Your task to perform on an android device: open app "Google Keep" (install if not already installed) Image 0: 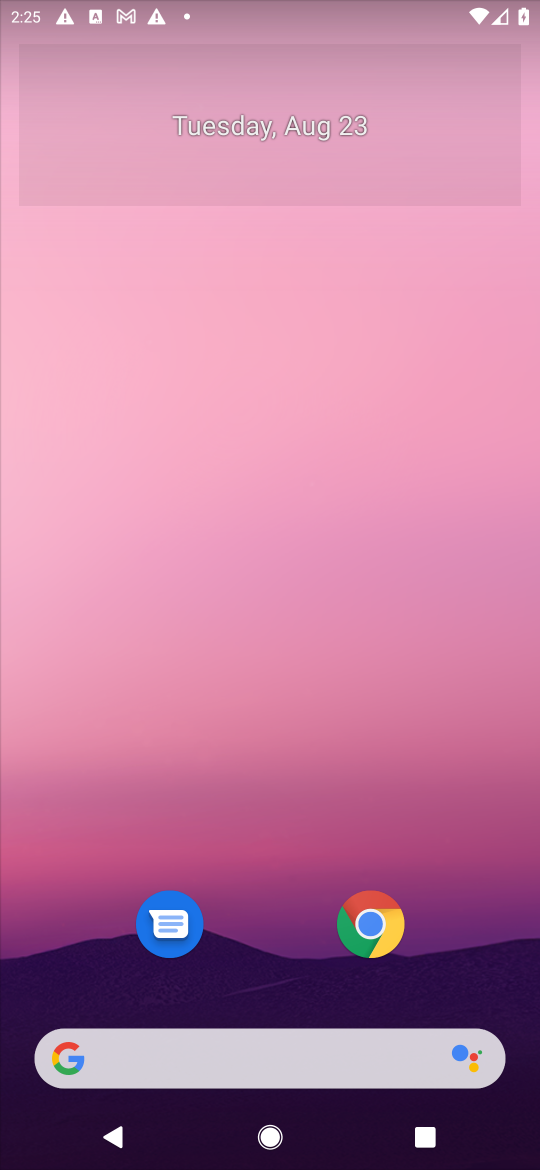
Step 0: press home button
Your task to perform on an android device: open app "Google Keep" (install if not already installed) Image 1: 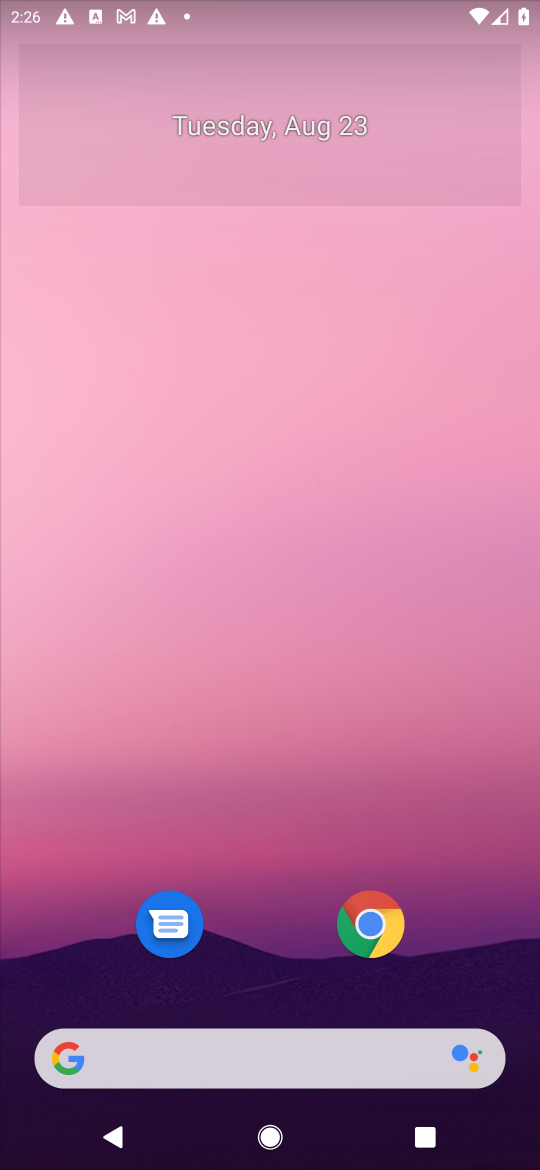
Step 1: drag from (469, 973) to (495, 225)
Your task to perform on an android device: open app "Google Keep" (install if not already installed) Image 2: 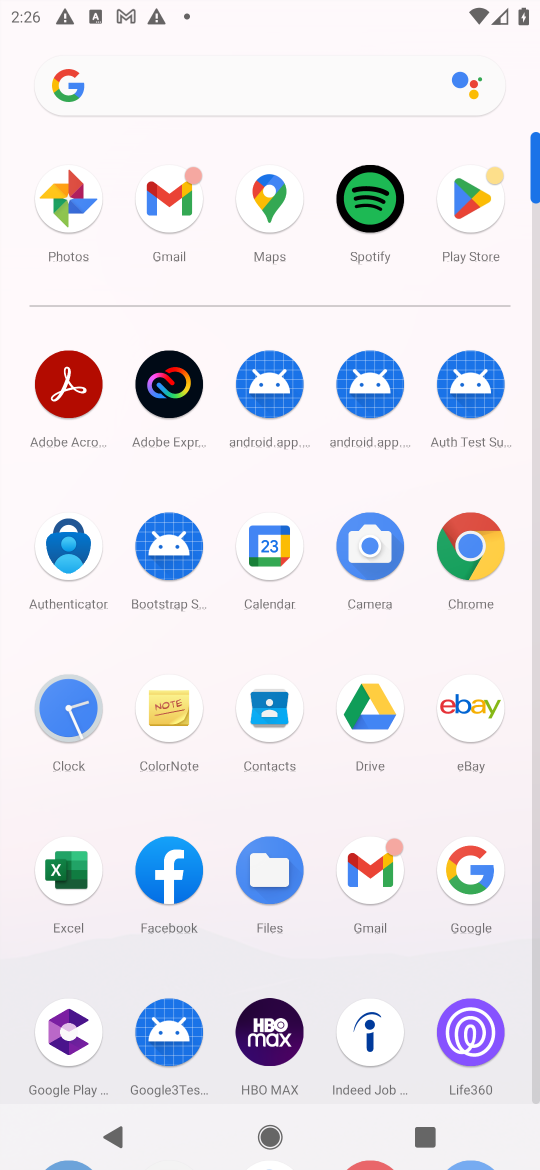
Step 2: click (476, 187)
Your task to perform on an android device: open app "Google Keep" (install if not already installed) Image 3: 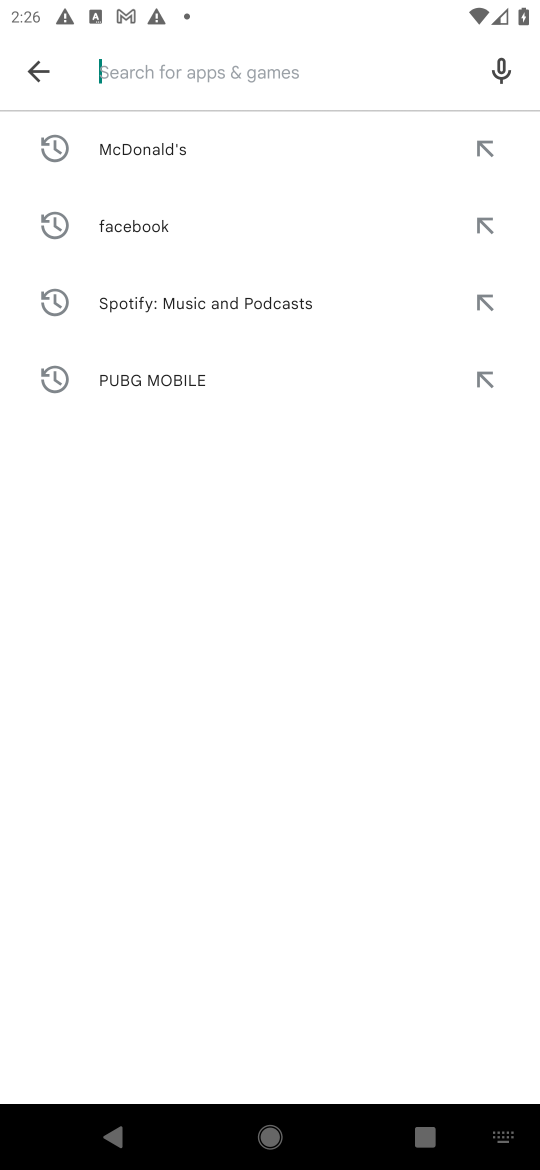
Step 3: press enter
Your task to perform on an android device: open app "Google Keep" (install if not already installed) Image 4: 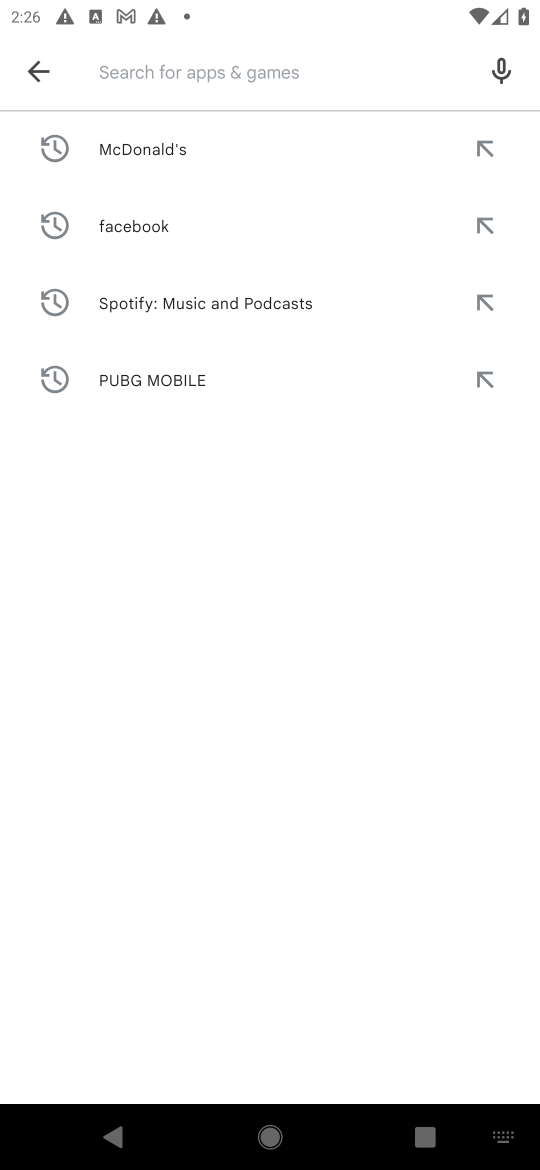
Step 4: type "google keep"
Your task to perform on an android device: open app "Google Keep" (install if not already installed) Image 5: 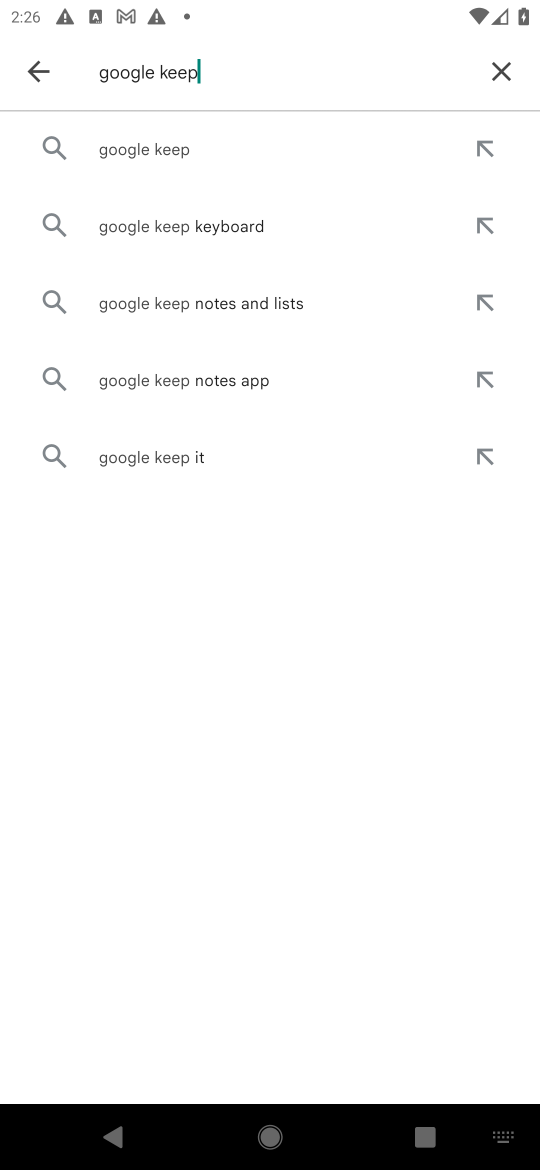
Step 5: click (237, 146)
Your task to perform on an android device: open app "Google Keep" (install if not already installed) Image 6: 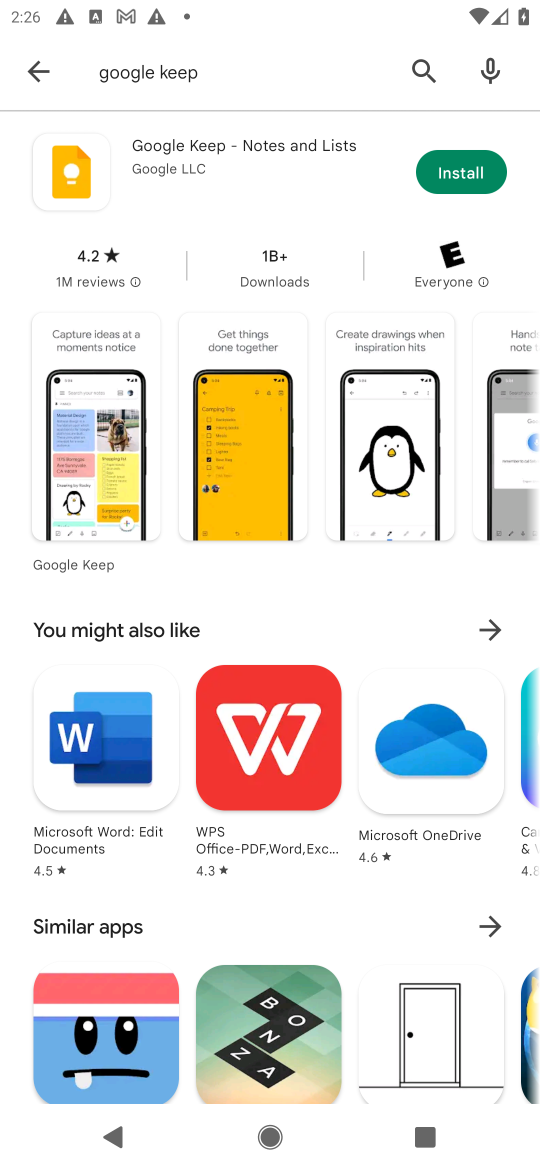
Step 6: click (468, 172)
Your task to perform on an android device: open app "Google Keep" (install if not already installed) Image 7: 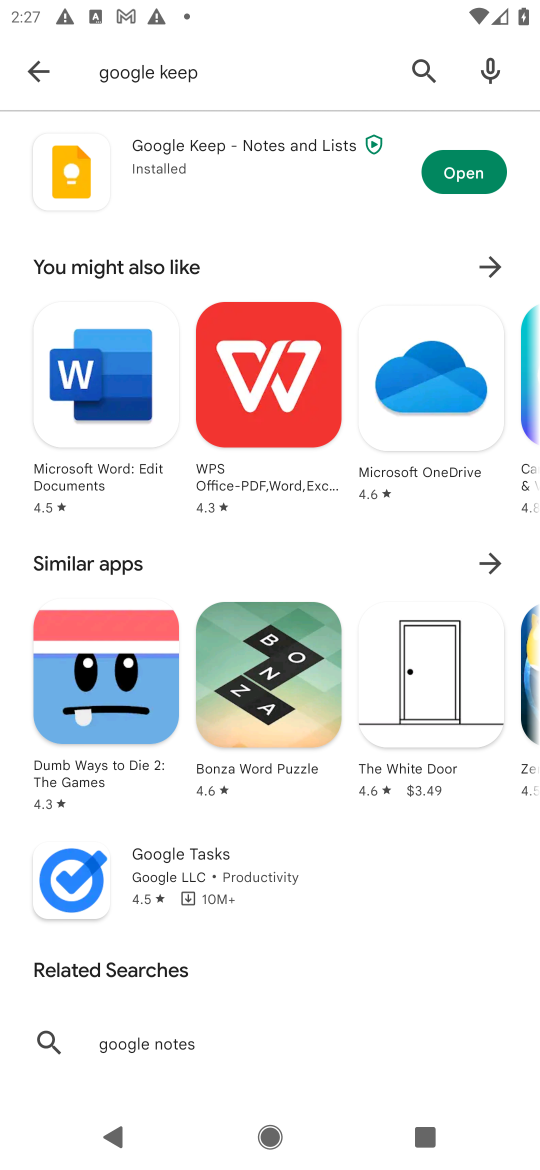
Step 7: click (457, 177)
Your task to perform on an android device: open app "Google Keep" (install if not already installed) Image 8: 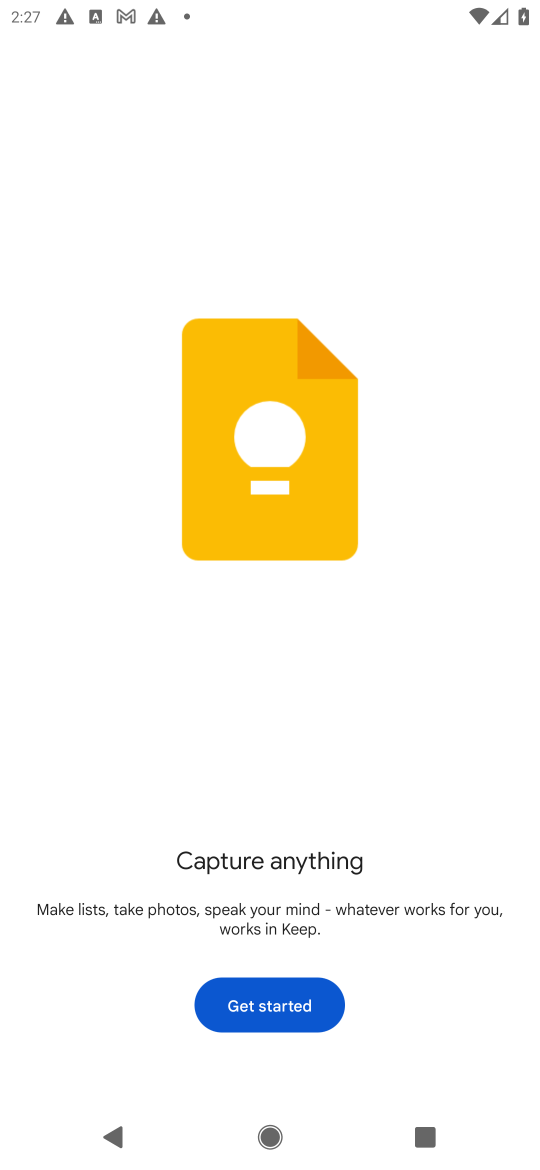
Step 8: task complete